Your task to perform on an android device: turn off sleep mode Image 0: 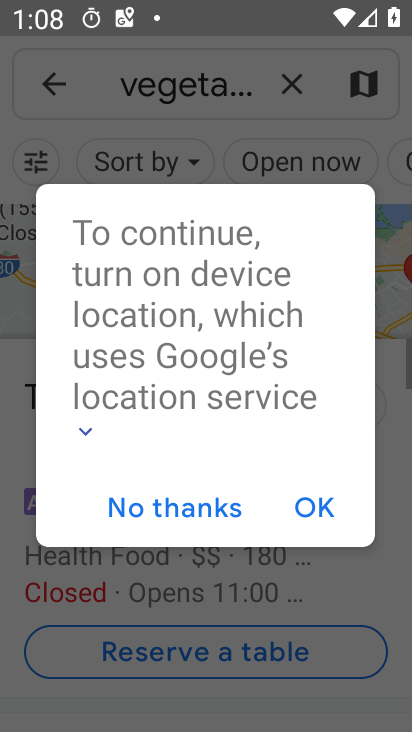
Step 0: press home button
Your task to perform on an android device: turn off sleep mode Image 1: 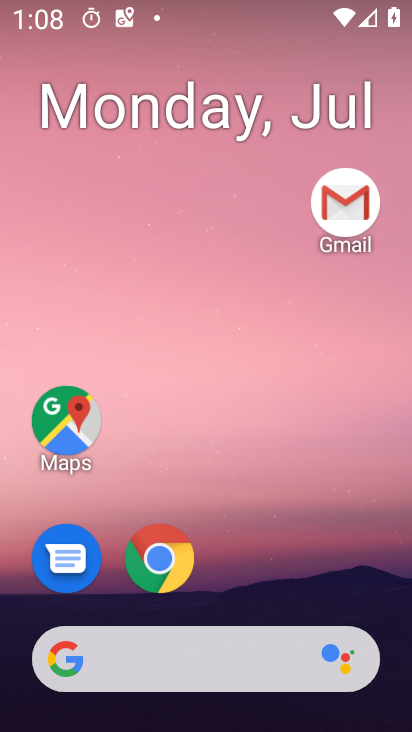
Step 1: drag from (379, 562) to (410, 160)
Your task to perform on an android device: turn off sleep mode Image 2: 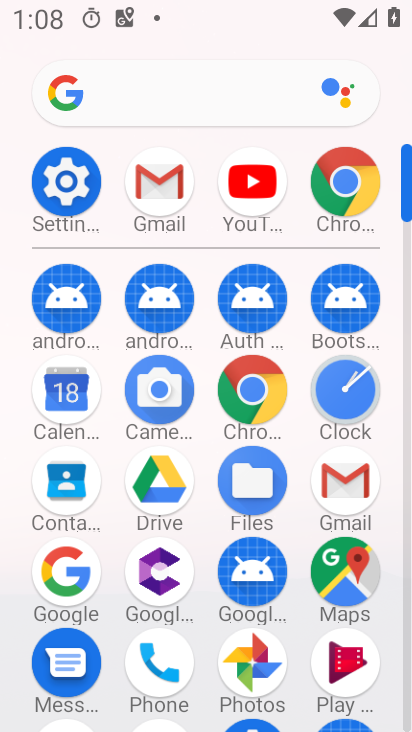
Step 2: click (80, 190)
Your task to perform on an android device: turn off sleep mode Image 3: 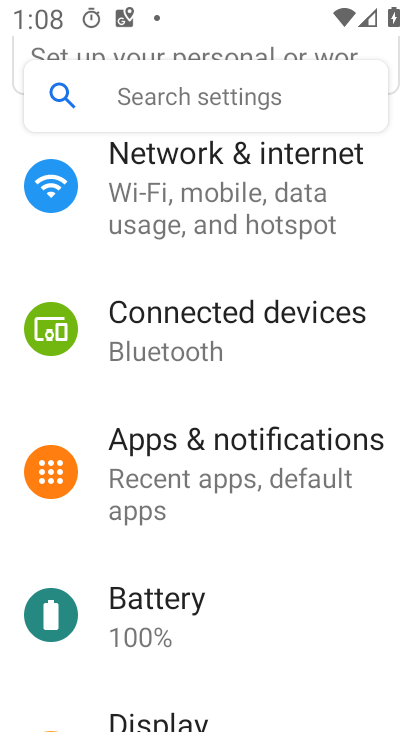
Step 3: drag from (373, 358) to (389, 449)
Your task to perform on an android device: turn off sleep mode Image 4: 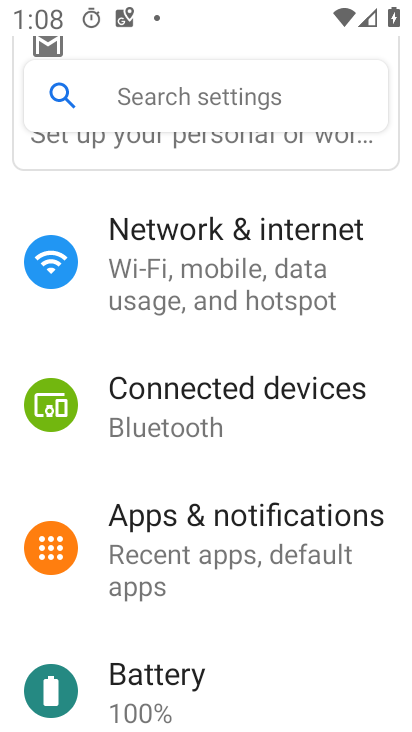
Step 4: drag from (376, 307) to (389, 457)
Your task to perform on an android device: turn off sleep mode Image 5: 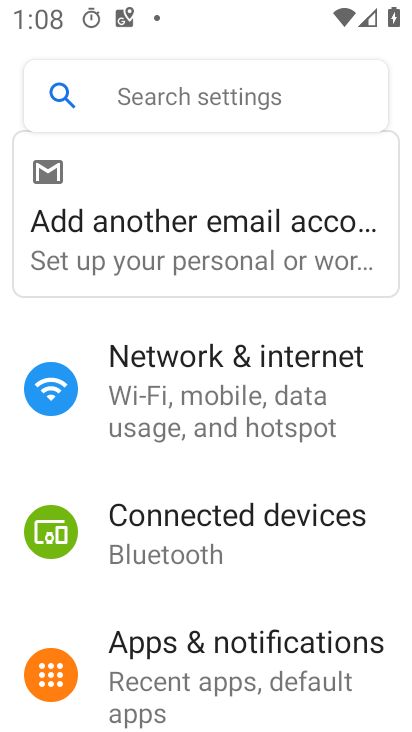
Step 5: drag from (389, 327) to (394, 486)
Your task to perform on an android device: turn off sleep mode Image 6: 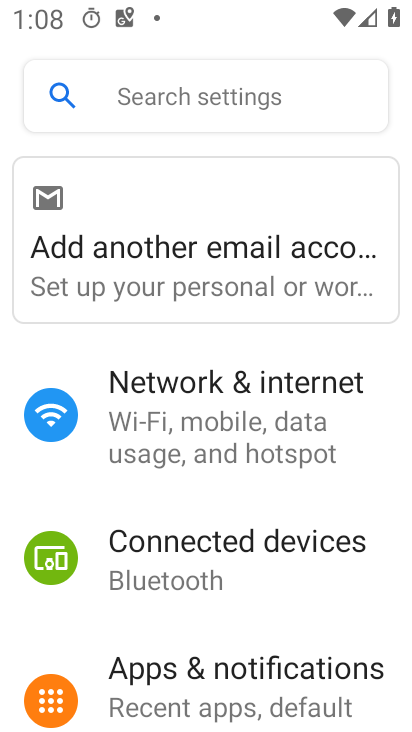
Step 6: drag from (386, 623) to (387, 531)
Your task to perform on an android device: turn off sleep mode Image 7: 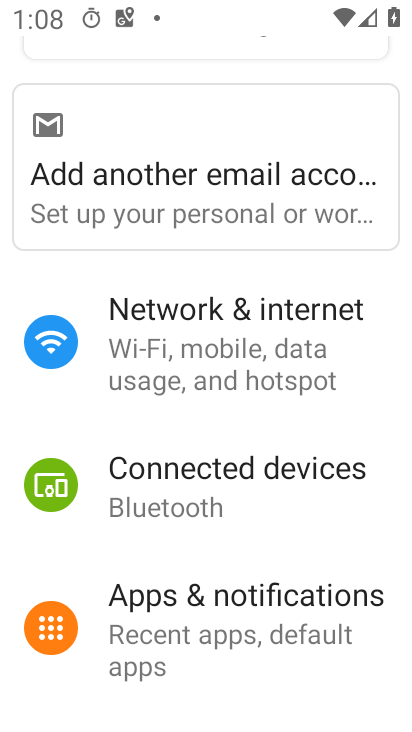
Step 7: drag from (385, 631) to (385, 510)
Your task to perform on an android device: turn off sleep mode Image 8: 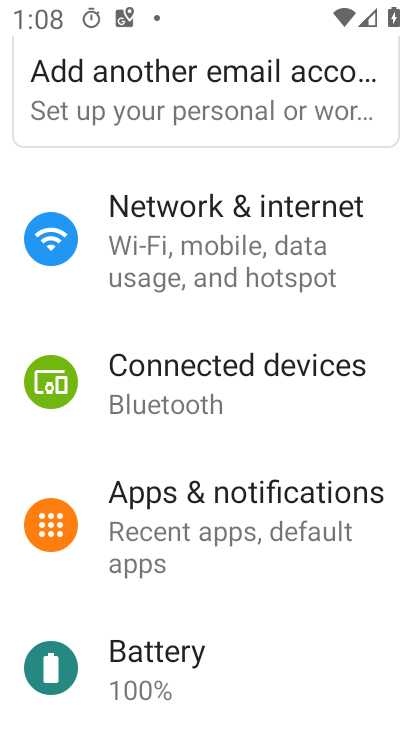
Step 8: drag from (365, 633) to (366, 526)
Your task to perform on an android device: turn off sleep mode Image 9: 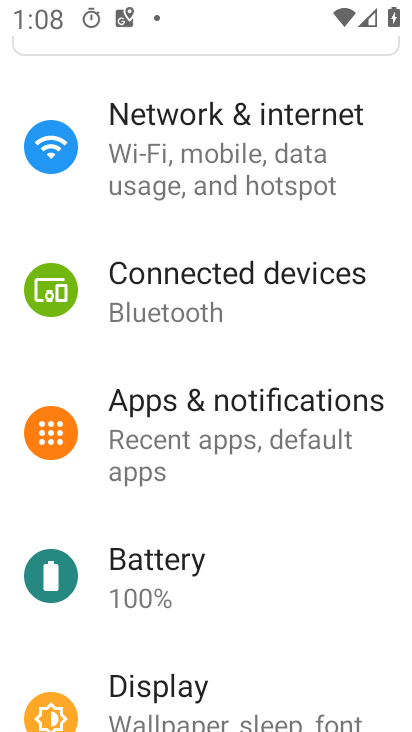
Step 9: drag from (357, 620) to (357, 528)
Your task to perform on an android device: turn off sleep mode Image 10: 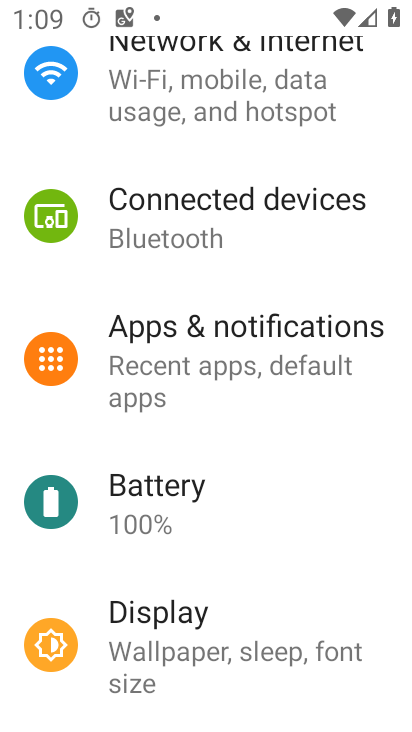
Step 10: drag from (360, 684) to (369, 546)
Your task to perform on an android device: turn off sleep mode Image 11: 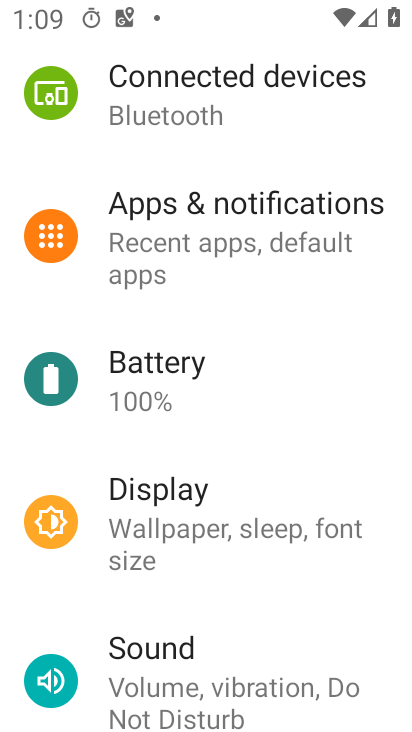
Step 11: drag from (361, 627) to (361, 518)
Your task to perform on an android device: turn off sleep mode Image 12: 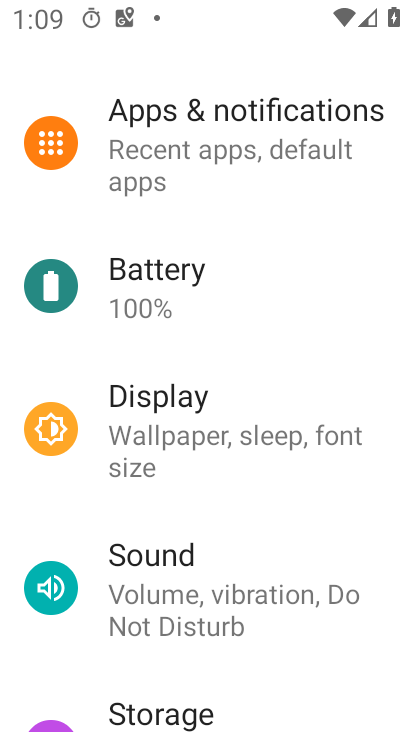
Step 12: click (320, 431)
Your task to perform on an android device: turn off sleep mode Image 13: 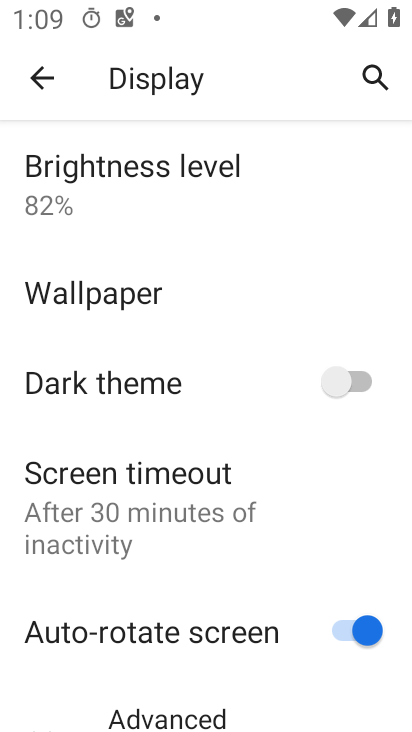
Step 13: drag from (305, 493) to (305, 422)
Your task to perform on an android device: turn off sleep mode Image 14: 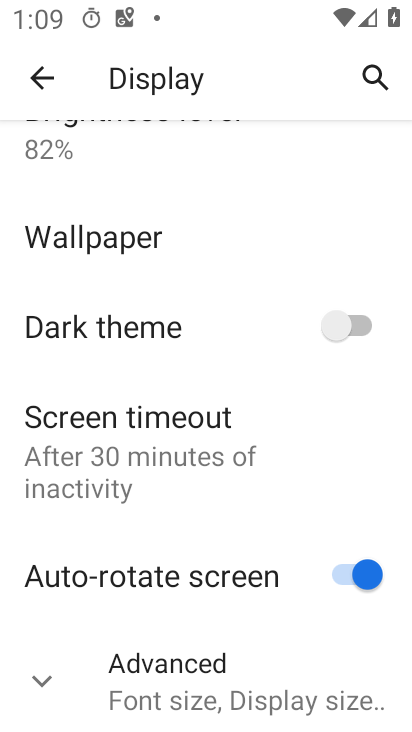
Step 14: click (259, 691)
Your task to perform on an android device: turn off sleep mode Image 15: 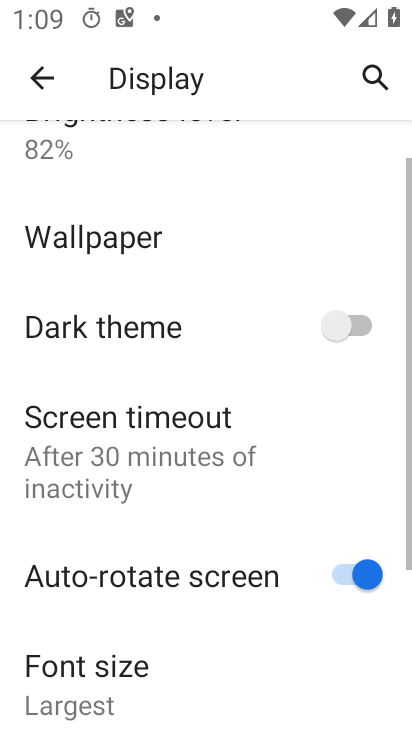
Step 15: task complete